Your task to perform on an android device: delete location history Image 0: 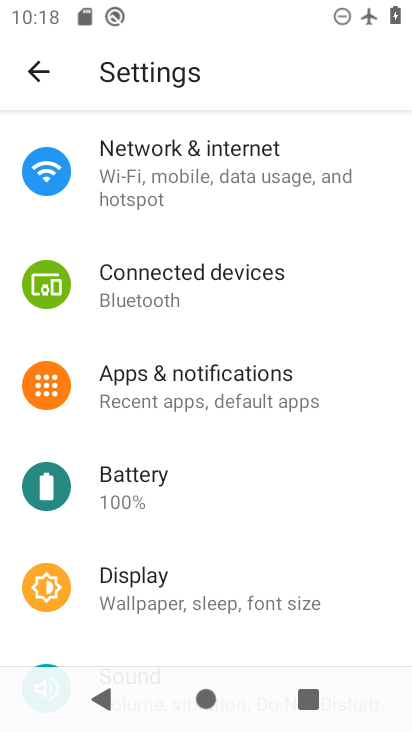
Step 0: press home button
Your task to perform on an android device: delete location history Image 1: 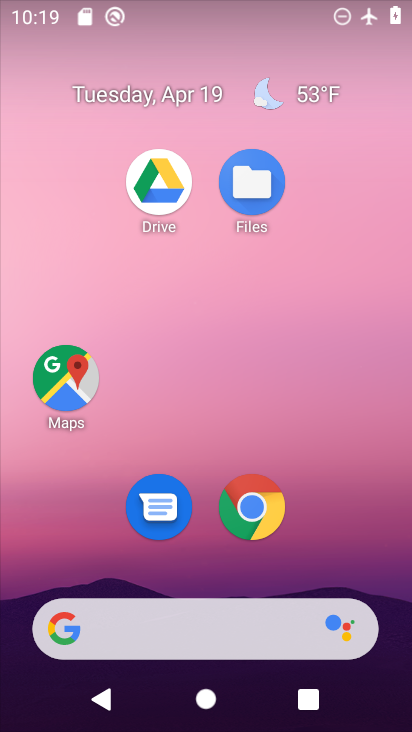
Step 1: click (68, 392)
Your task to perform on an android device: delete location history Image 2: 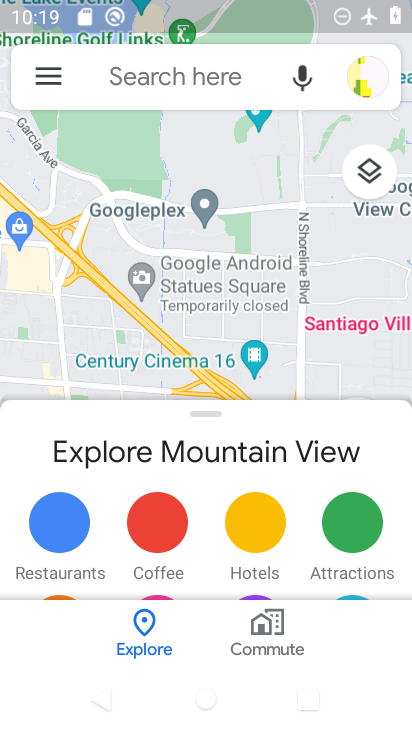
Step 2: click (48, 79)
Your task to perform on an android device: delete location history Image 3: 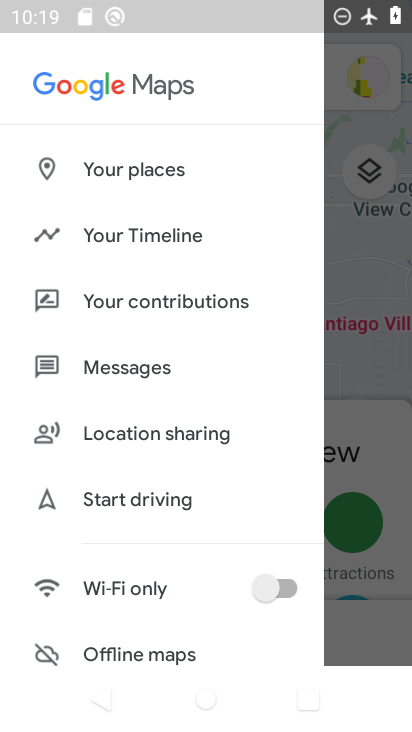
Step 3: click (139, 225)
Your task to perform on an android device: delete location history Image 4: 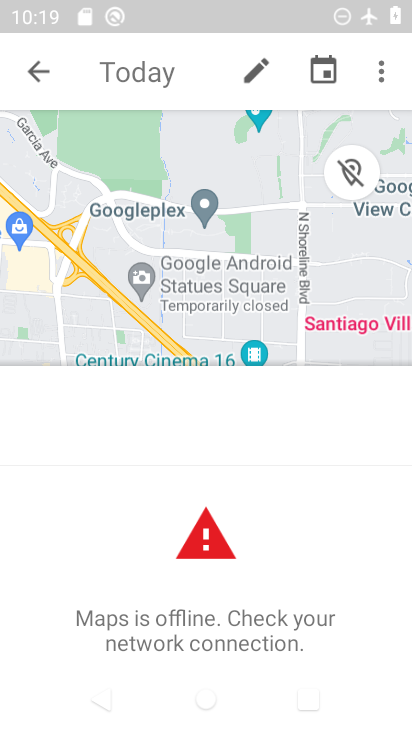
Step 4: click (378, 70)
Your task to perform on an android device: delete location history Image 5: 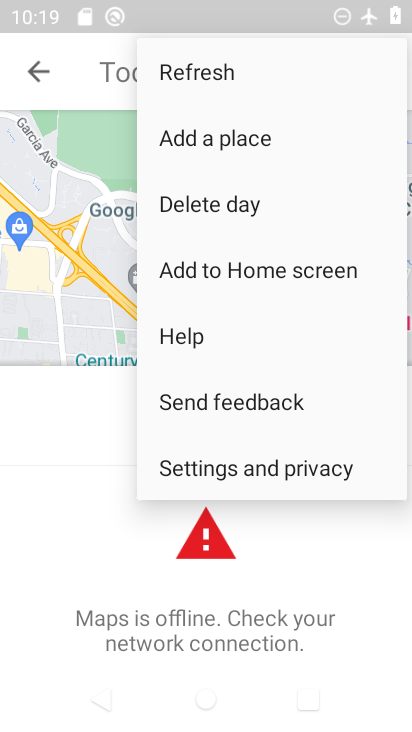
Step 5: click (278, 468)
Your task to perform on an android device: delete location history Image 6: 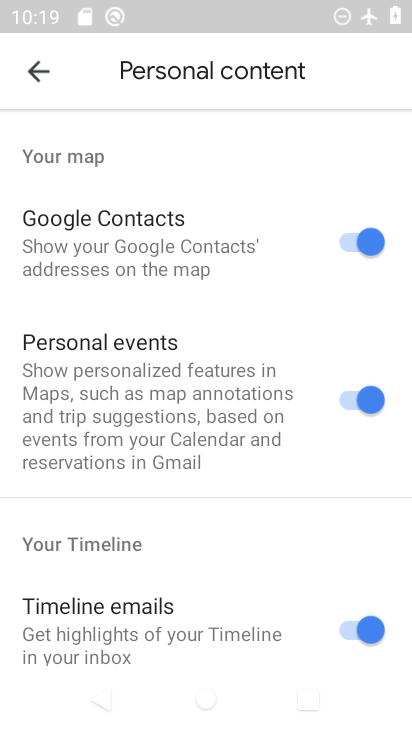
Step 6: drag from (233, 569) to (195, 169)
Your task to perform on an android device: delete location history Image 7: 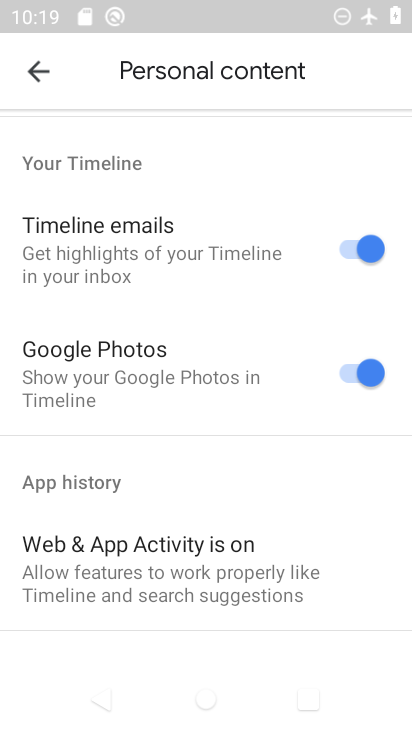
Step 7: drag from (161, 523) to (145, 132)
Your task to perform on an android device: delete location history Image 8: 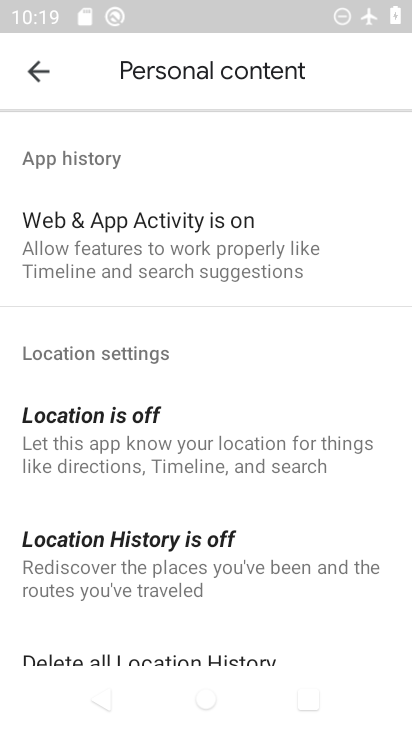
Step 8: drag from (190, 594) to (180, 300)
Your task to perform on an android device: delete location history Image 9: 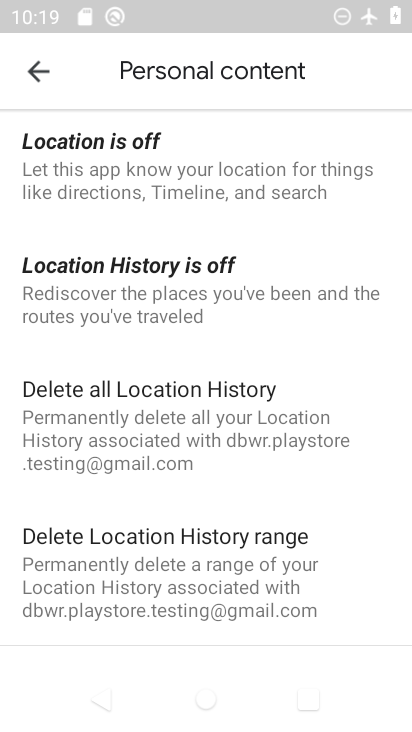
Step 9: click (187, 426)
Your task to perform on an android device: delete location history Image 10: 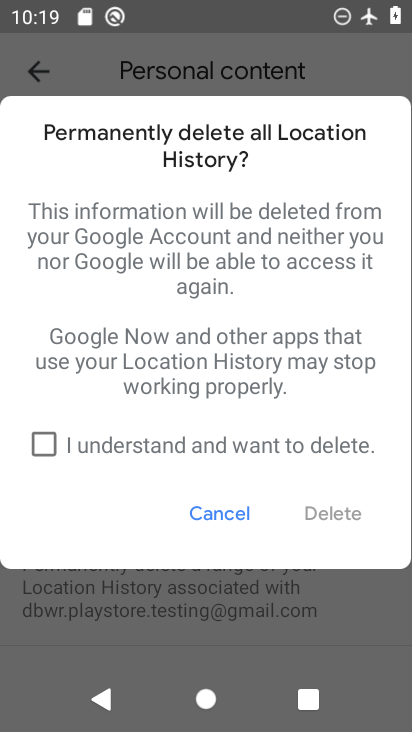
Step 10: click (40, 443)
Your task to perform on an android device: delete location history Image 11: 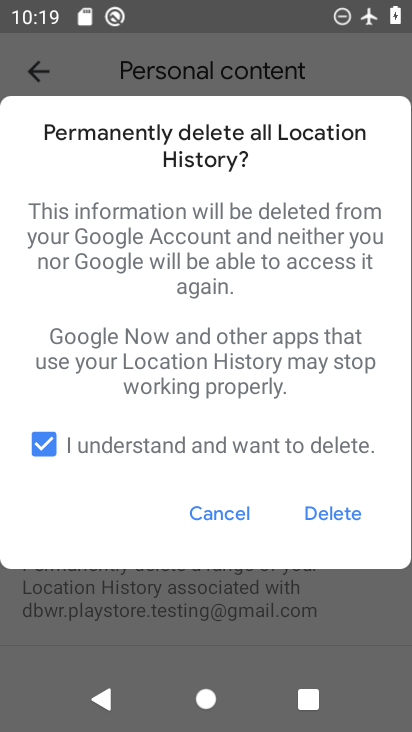
Step 11: click (350, 501)
Your task to perform on an android device: delete location history Image 12: 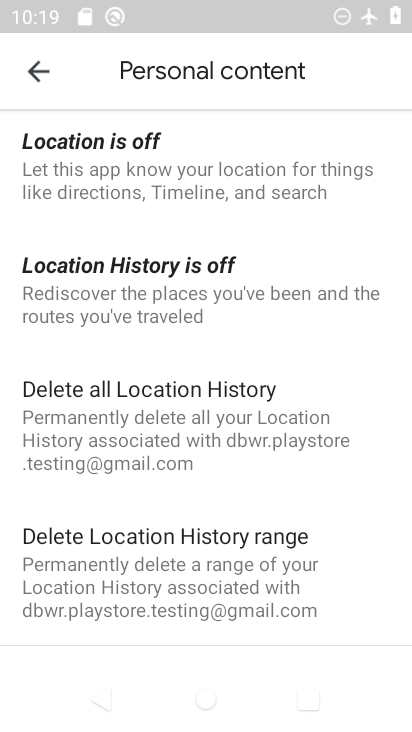
Step 12: task complete